Your task to perform on an android device: open sync settings in chrome Image 0: 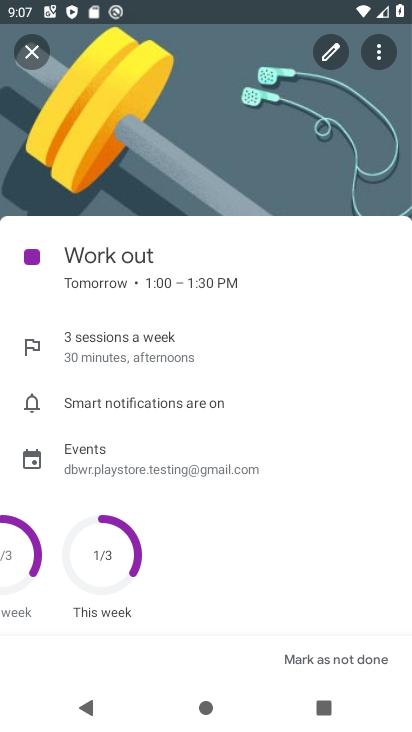
Step 0: press home button
Your task to perform on an android device: open sync settings in chrome Image 1: 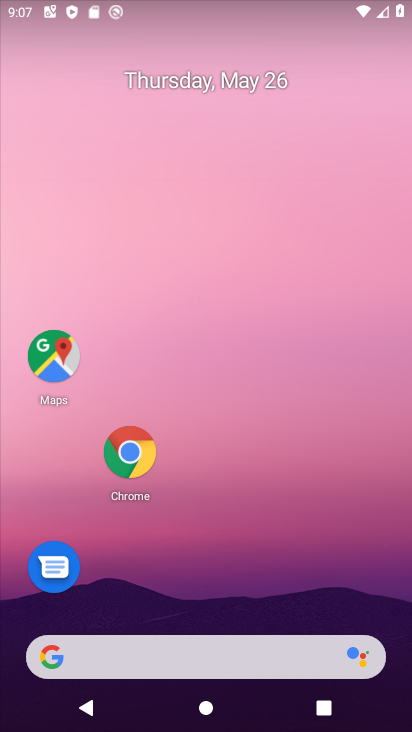
Step 1: click (135, 459)
Your task to perform on an android device: open sync settings in chrome Image 2: 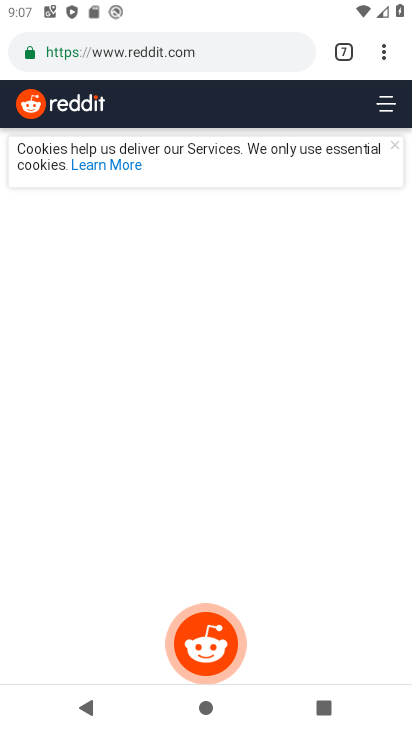
Step 2: drag from (383, 53) to (243, 606)
Your task to perform on an android device: open sync settings in chrome Image 3: 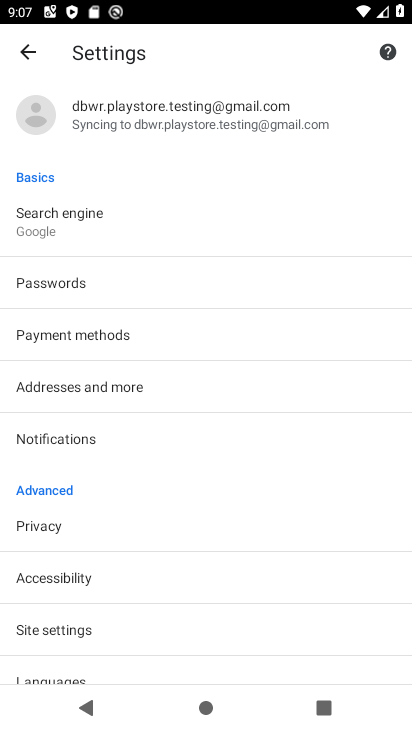
Step 3: click (184, 123)
Your task to perform on an android device: open sync settings in chrome Image 4: 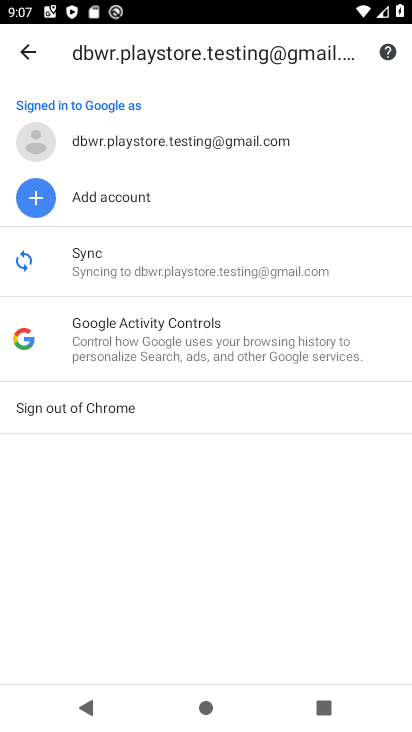
Step 4: click (113, 263)
Your task to perform on an android device: open sync settings in chrome Image 5: 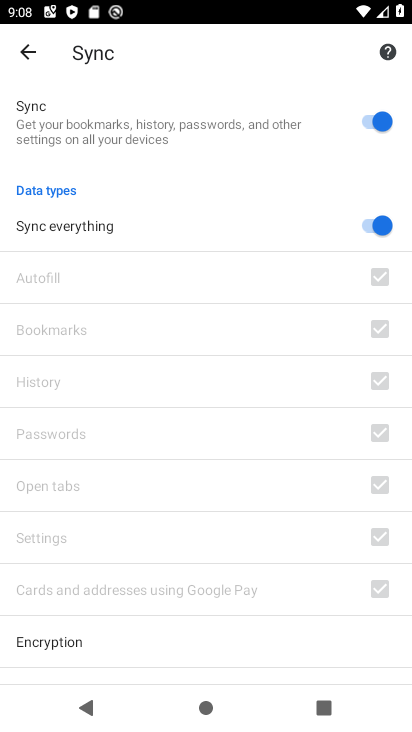
Step 5: task complete